Your task to perform on an android device: find which apps use the phone's location Image 0: 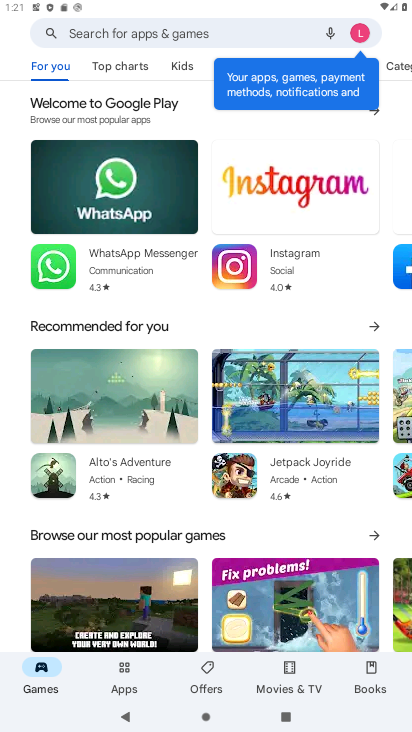
Step 0: press back button
Your task to perform on an android device: find which apps use the phone's location Image 1: 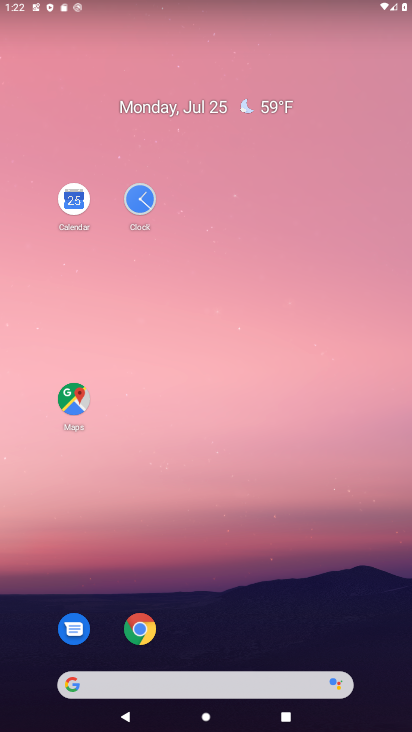
Step 1: drag from (233, 629) to (300, 166)
Your task to perform on an android device: find which apps use the phone's location Image 2: 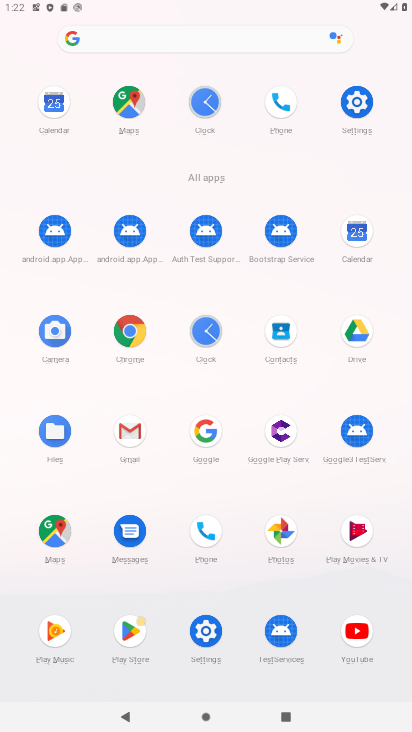
Step 2: drag from (347, 106) to (229, 191)
Your task to perform on an android device: find which apps use the phone's location Image 3: 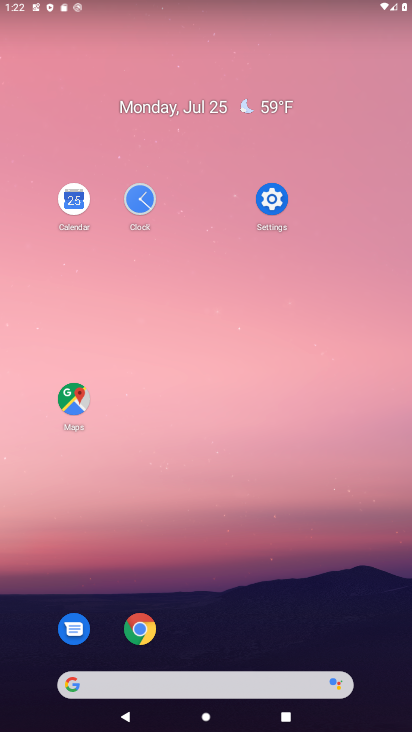
Step 3: click (279, 204)
Your task to perform on an android device: find which apps use the phone's location Image 4: 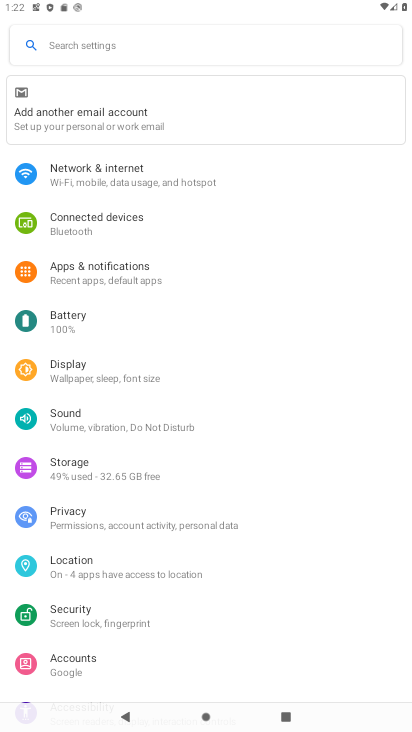
Step 4: click (124, 563)
Your task to perform on an android device: find which apps use the phone's location Image 5: 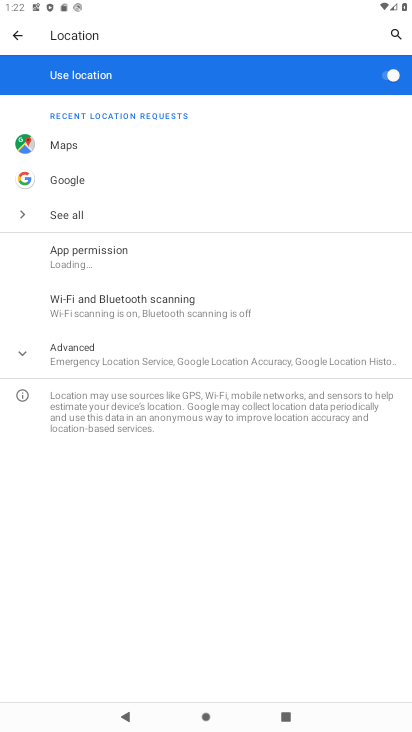
Step 5: task complete